Your task to perform on an android device: change notifications settings Image 0: 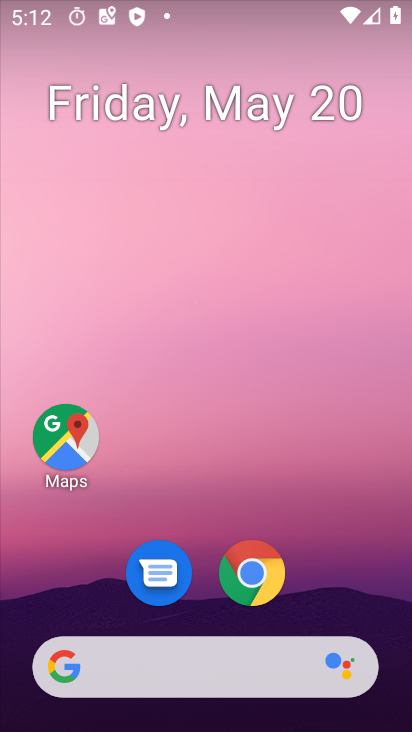
Step 0: drag from (382, 575) to (272, 35)
Your task to perform on an android device: change notifications settings Image 1: 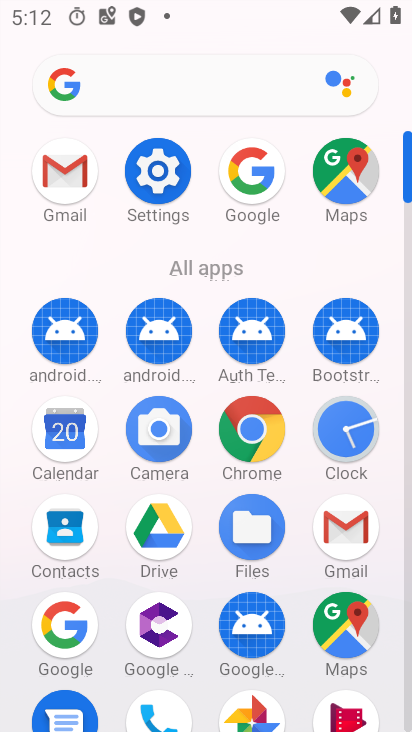
Step 1: click (161, 200)
Your task to perform on an android device: change notifications settings Image 2: 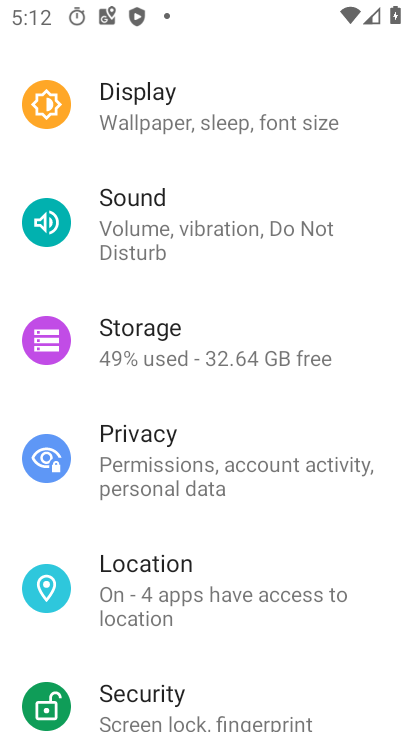
Step 2: drag from (255, 294) to (261, 607)
Your task to perform on an android device: change notifications settings Image 3: 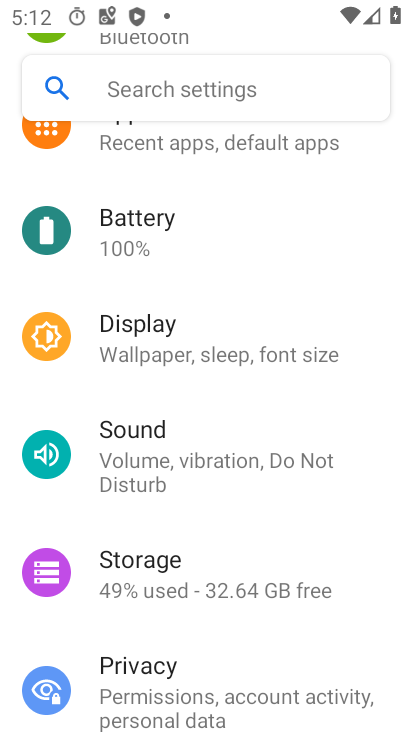
Step 3: click (219, 131)
Your task to perform on an android device: change notifications settings Image 4: 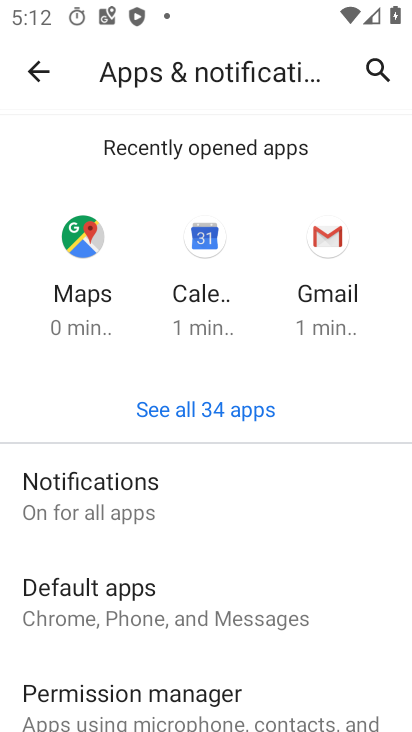
Step 4: click (227, 505)
Your task to perform on an android device: change notifications settings Image 5: 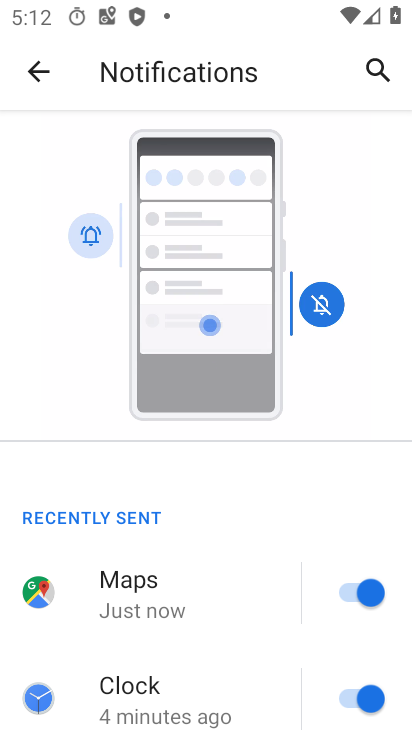
Step 5: drag from (263, 645) to (252, 196)
Your task to perform on an android device: change notifications settings Image 6: 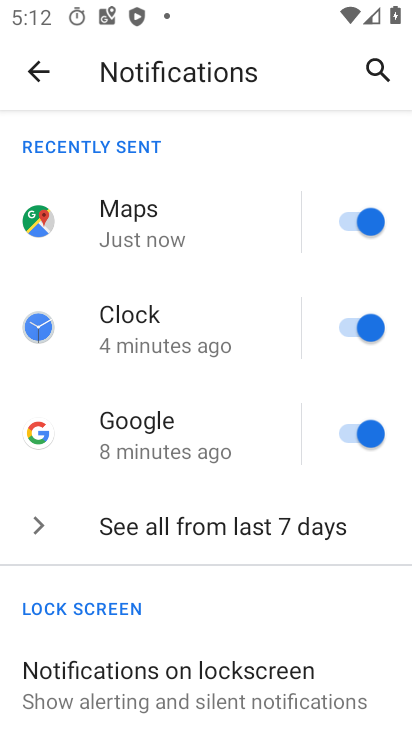
Step 6: drag from (262, 569) to (248, 331)
Your task to perform on an android device: change notifications settings Image 7: 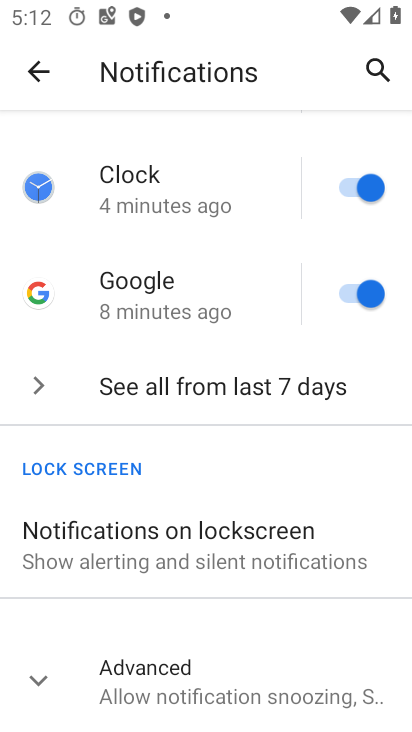
Step 7: click (376, 288)
Your task to perform on an android device: change notifications settings Image 8: 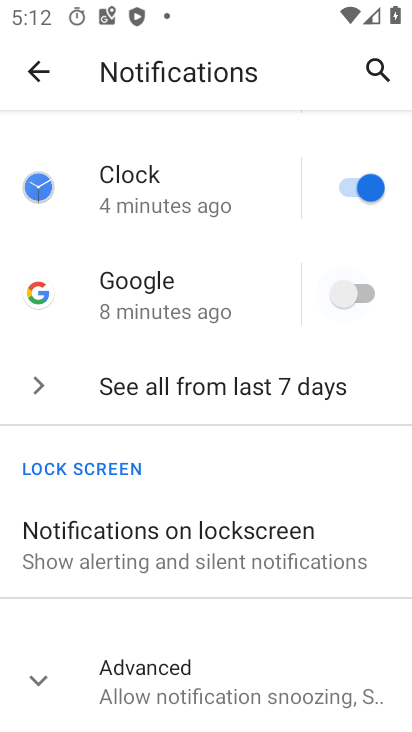
Step 8: click (362, 180)
Your task to perform on an android device: change notifications settings Image 9: 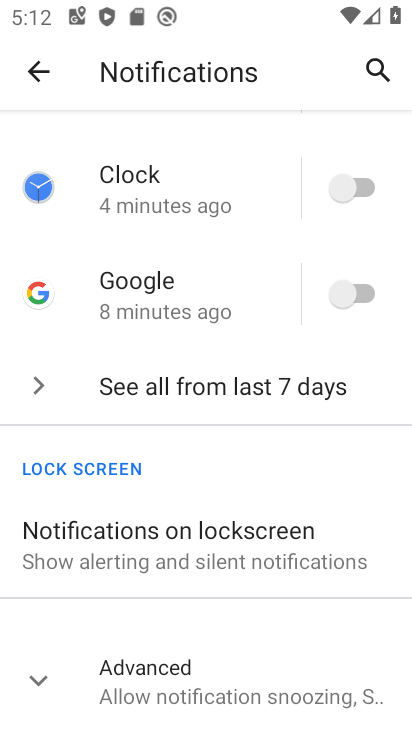
Step 9: drag from (215, 240) to (254, 533)
Your task to perform on an android device: change notifications settings Image 10: 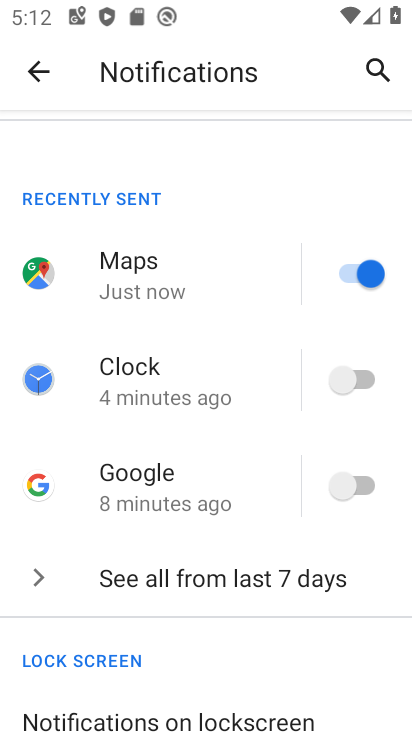
Step 10: click (357, 258)
Your task to perform on an android device: change notifications settings Image 11: 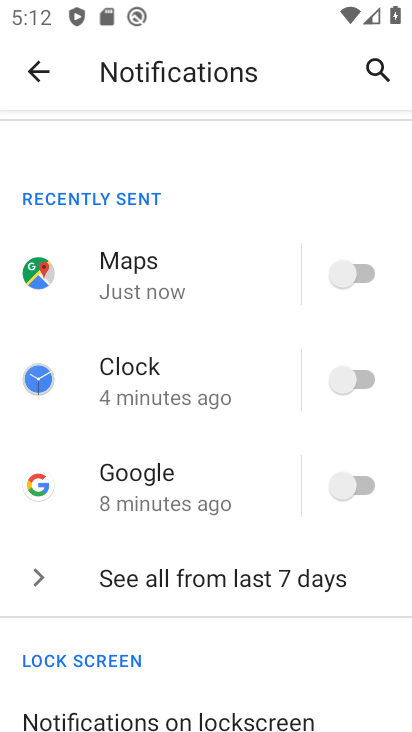
Step 11: task complete